Your task to perform on an android device: change the clock style Image 0: 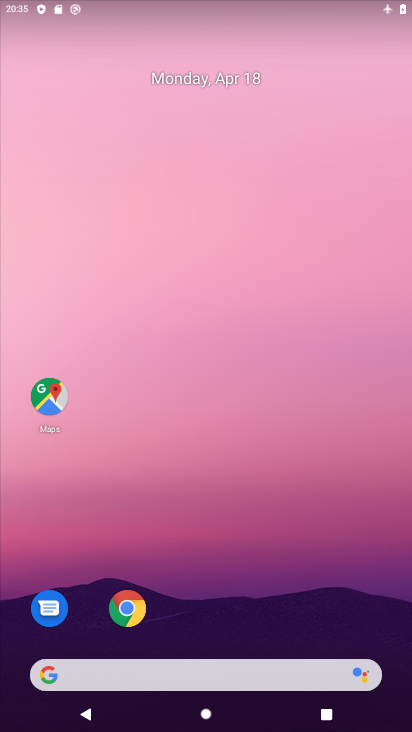
Step 0: drag from (248, 458) to (254, 213)
Your task to perform on an android device: change the clock style Image 1: 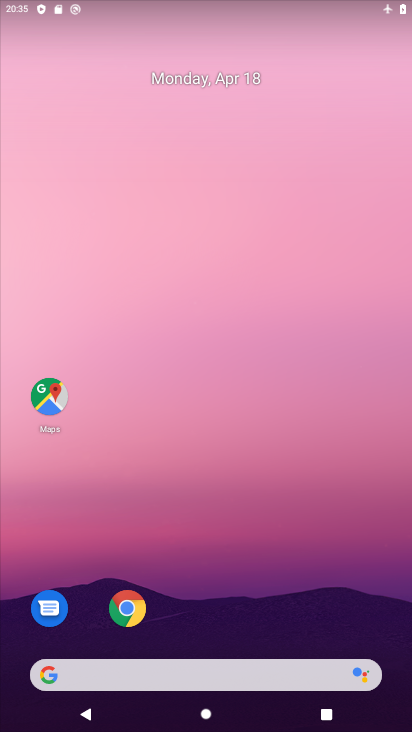
Step 1: drag from (236, 598) to (306, 202)
Your task to perform on an android device: change the clock style Image 2: 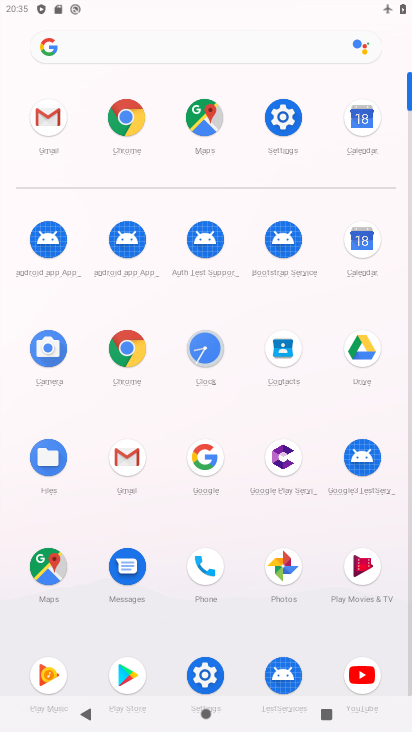
Step 2: click (203, 352)
Your task to perform on an android device: change the clock style Image 3: 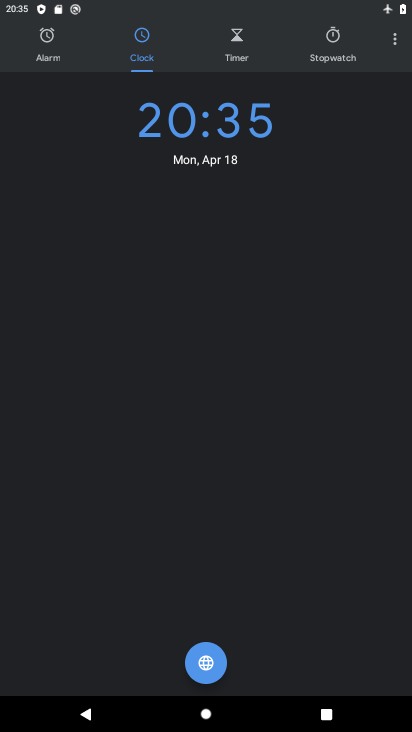
Step 3: click (392, 38)
Your task to perform on an android device: change the clock style Image 4: 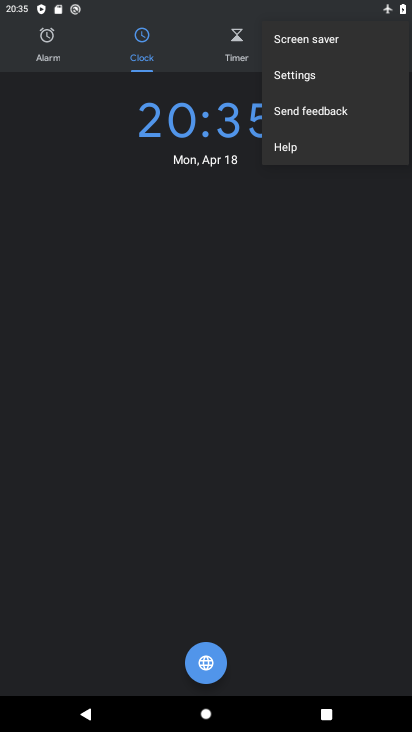
Step 4: click (327, 73)
Your task to perform on an android device: change the clock style Image 5: 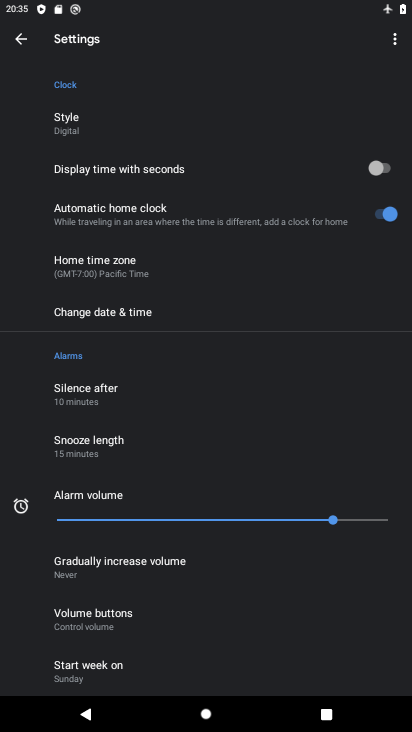
Step 5: click (206, 134)
Your task to perform on an android device: change the clock style Image 6: 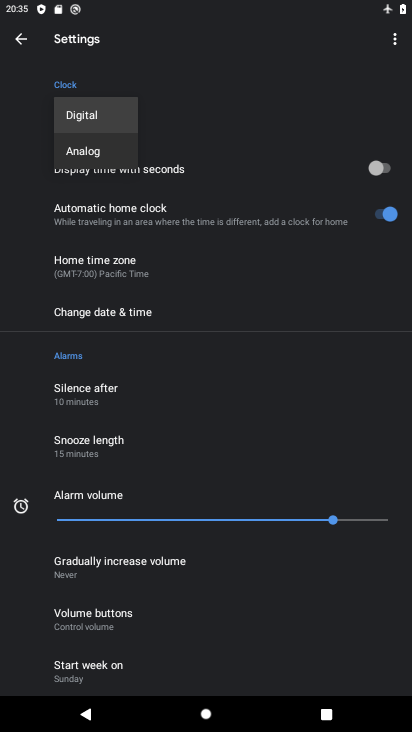
Step 6: click (108, 156)
Your task to perform on an android device: change the clock style Image 7: 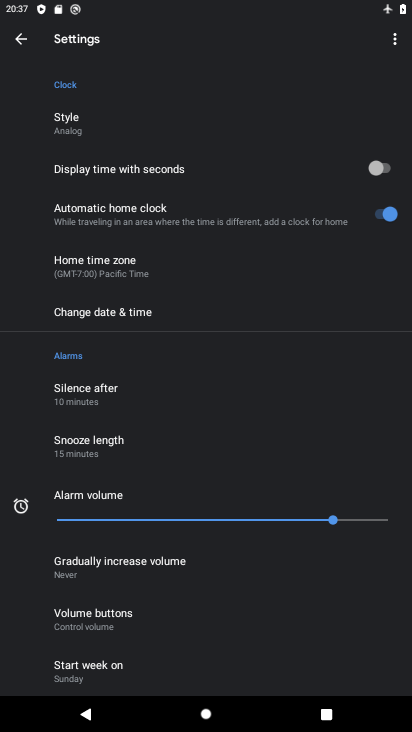
Step 7: task complete